Your task to perform on an android device: turn on sleep mode Image 0: 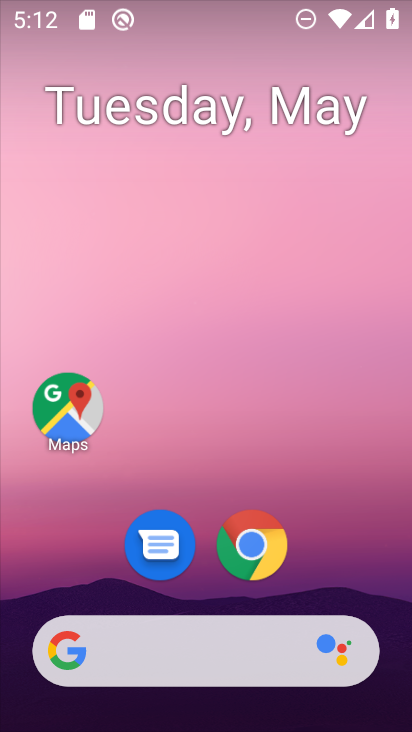
Step 0: drag from (341, 518) to (266, 0)
Your task to perform on an android device: turn on sleep mode Image 1: 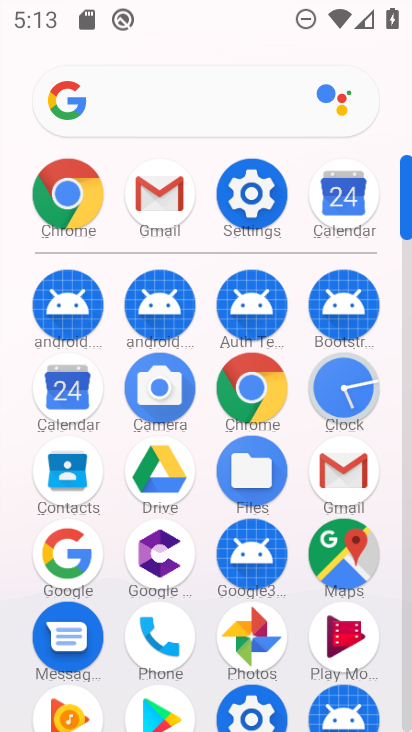
Step 1: click (252, 193)
Your task to perform on an android device: turn on sleep mode Image 2: 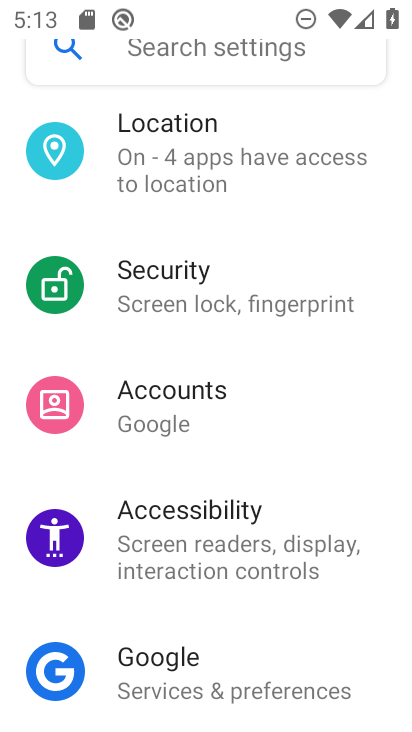
Step 2: drag from (251, 229) to (251, 540)
Your task to perform on an android device: turn on sleep mode Image 3: 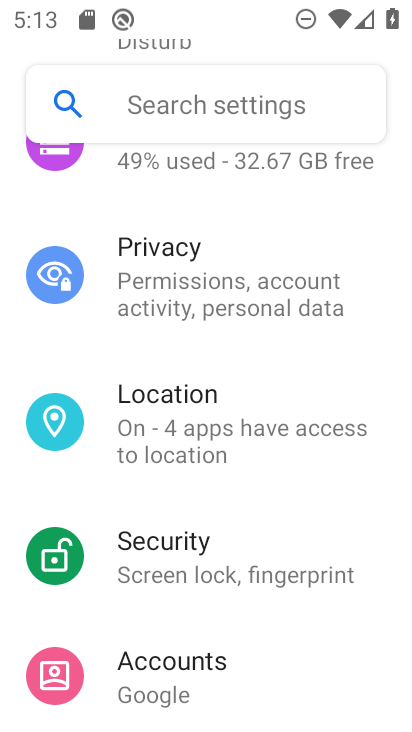
Step 3: drag from (283, 236) to (287, 564)
Your task to perform on an android device: turn on sleep mode Image 4: 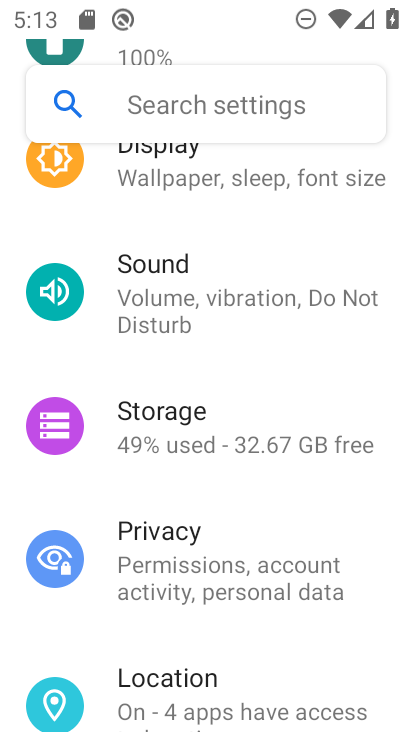
Step 4: drag from (278, 215) to (280, 586)
Your task to perform on an android device: turn on sleep mode Image 5: 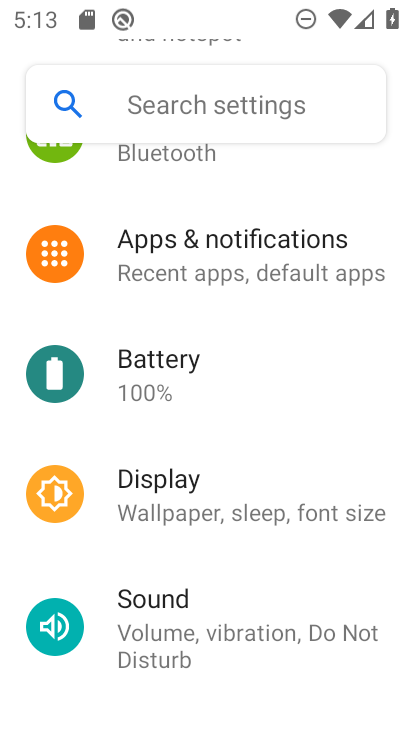
Step 5: drag from (281, 240) to (283, 584)
Your task to perform on an android device: turn on sleep mode Image 6: 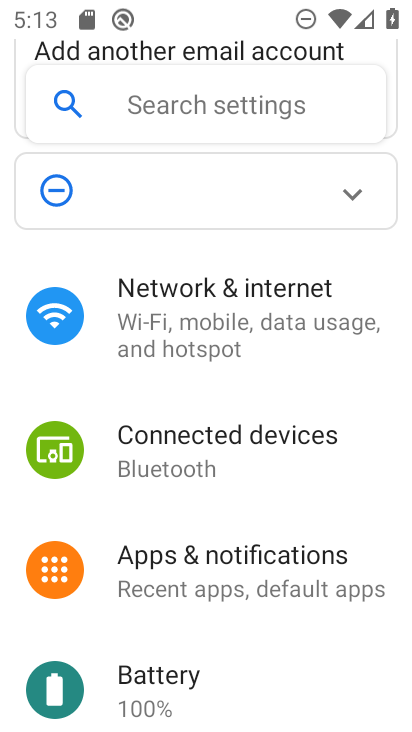
Step 6: click (291, 271)
Your task to perform on an android device: turn on sleep mode Image 7: 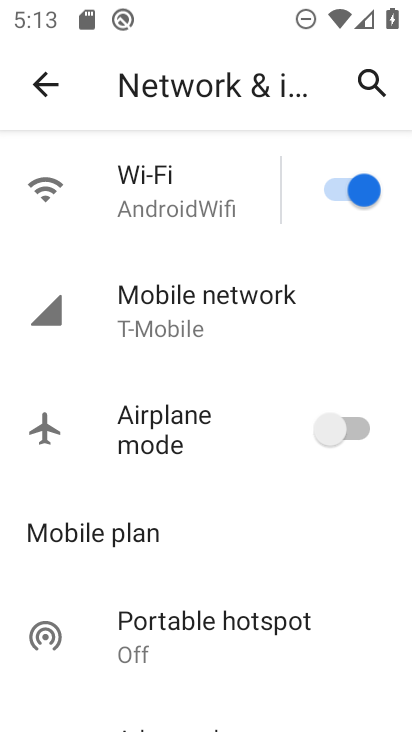
Step 7: drag from (230, 544) to (229, 114)
Your task to perform on an android device: turn on sleep mode Image 8: 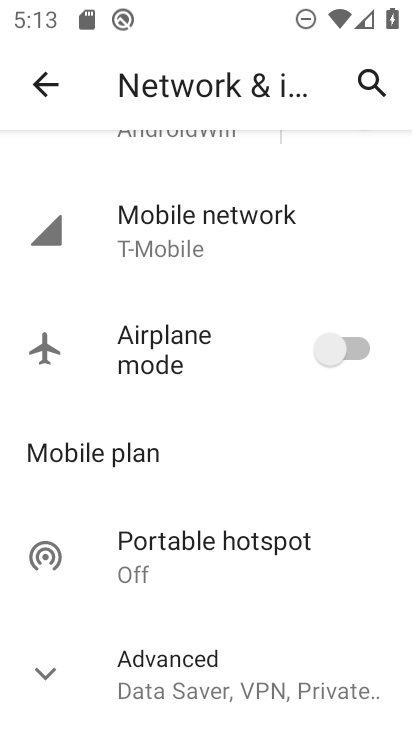
Step 8: drag from (195, 486) to (233, 182)
Your task to perform on an android device: turn on sleep mode Image 9: 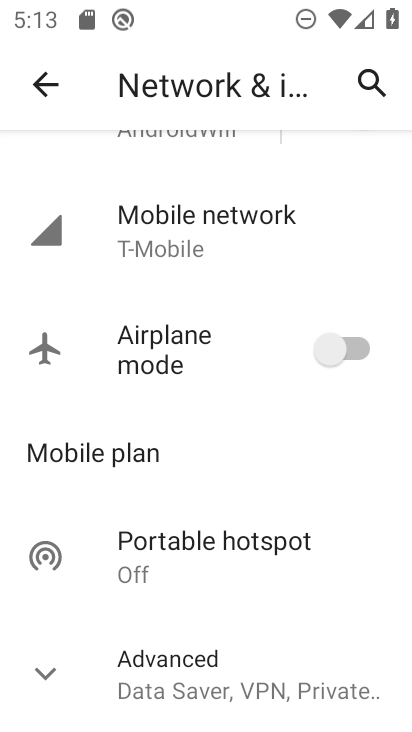
Step 9: click (41, 682)
Your task to perform on an android device: turn on sleep mode Image 10: 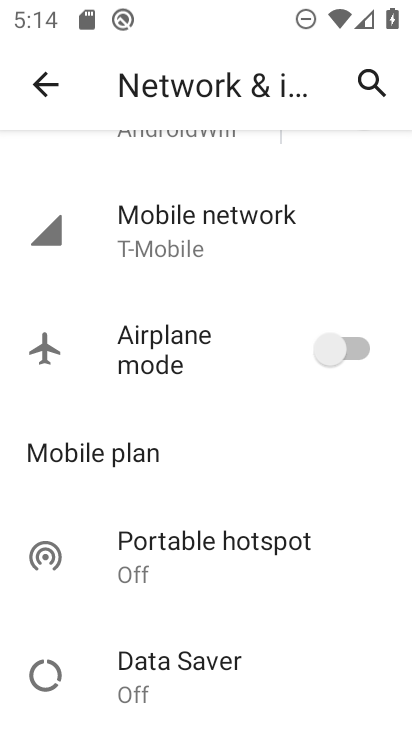
Step 10: task complete